Your task to perform on an android device: turn off airplane mode Image 0: 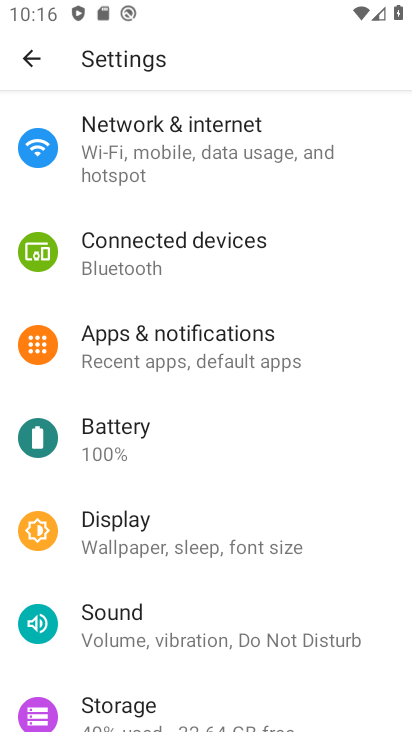
Step 0: press back button
Your task to perform on an android device: turn off airplane mode Image 1: 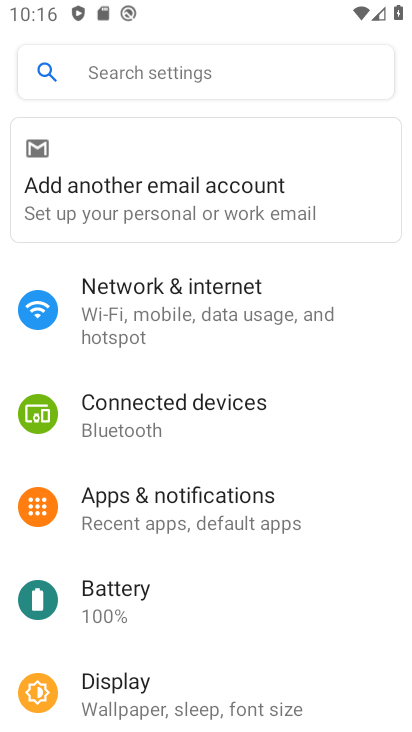
Step 1: task complete